Your task to perform on an android device: open a bookmark in the chrome app Image 0: 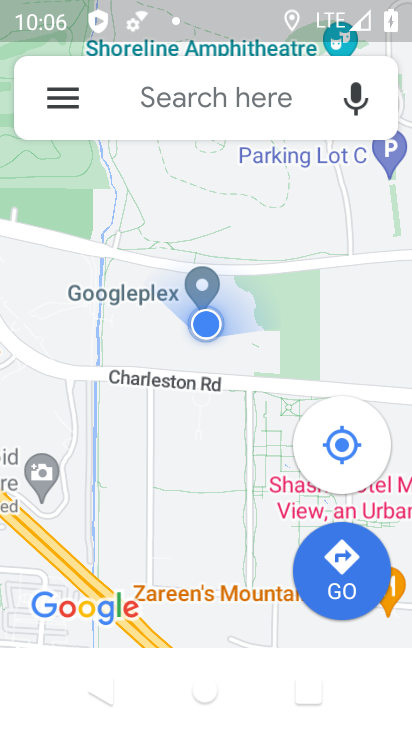
Step 0: press home button
Your task to perform on an android device: open a bookmark in the chrome app Image 1: 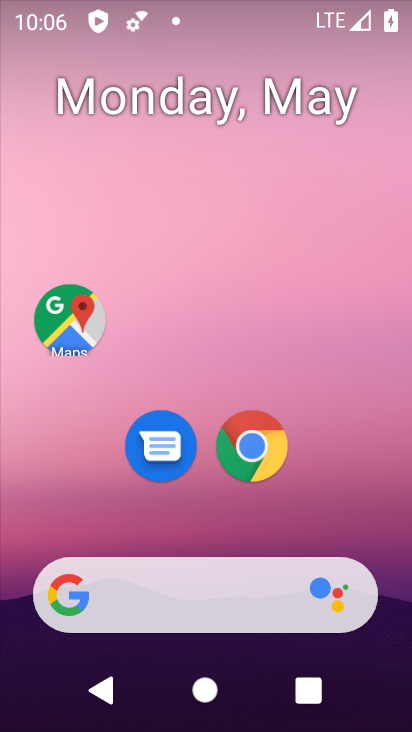
Step 1: click (247, 439)
Your task to perform on an android device: open a bookmark in the chrome app Image 2: 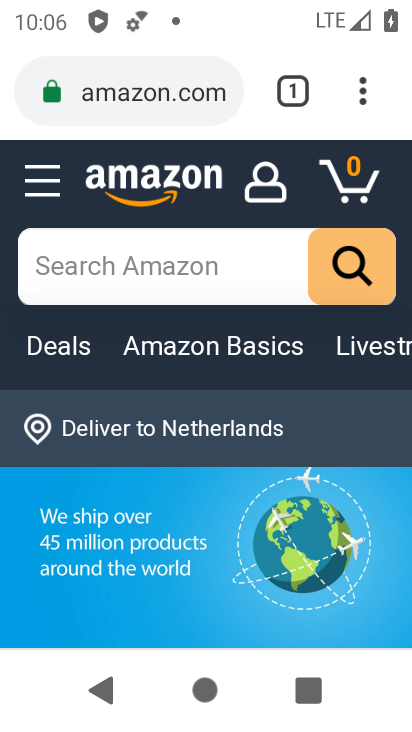
Step 2: click (365, 106)
Your task to perform on an android device: open a bookmark in the chrome app Image 3: 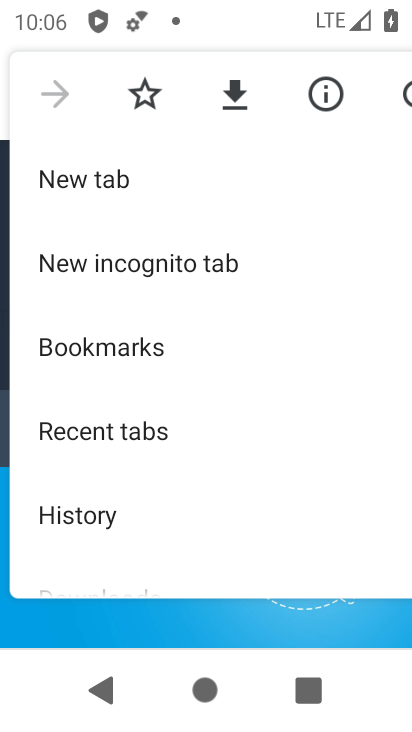
Step 3: click (176, 352)
Your task to perform on an android device: open a bookmark in the chrome app Image 4: 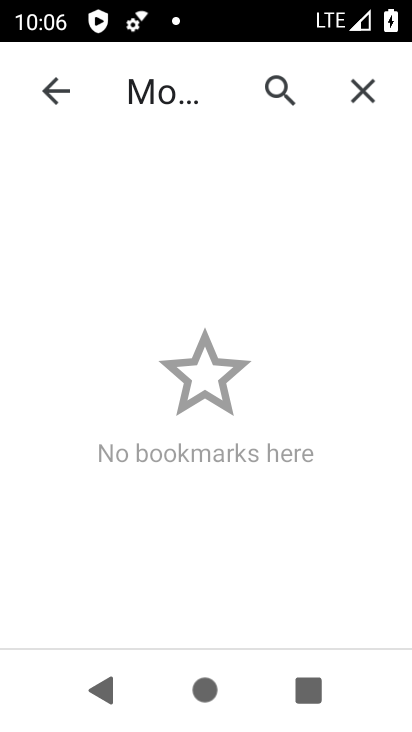
Step 4: task complete